Your task to perform on an android device: Open wifi settings Image 0: 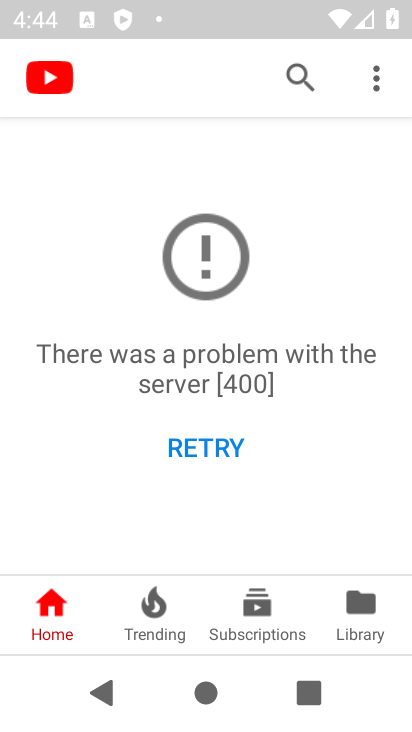
Step 0: press home button
Your task to perform on an android device: Open wifi settings Image 1: 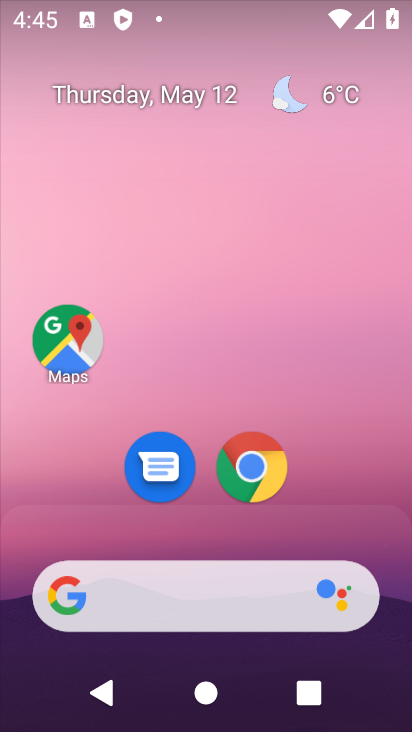
Step 1: drag from (124, 569) to (359, 4)
Your task to perform on an android device: Open wifi settings Image 2: 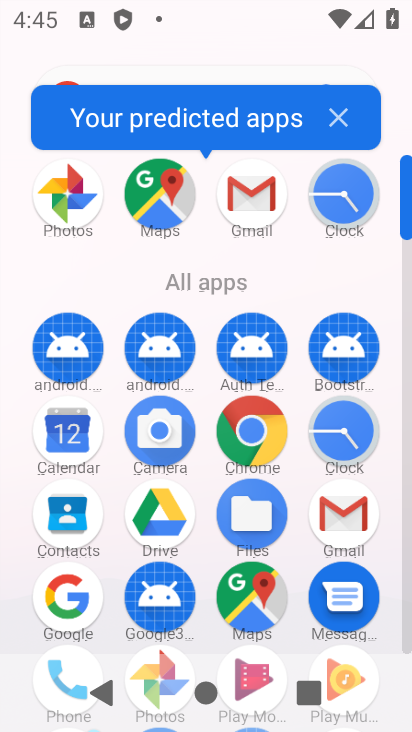
Step 2: drag from (202, 561) to (221, 257)
Your task to perform on an android device: Open wifi settings Image 3: 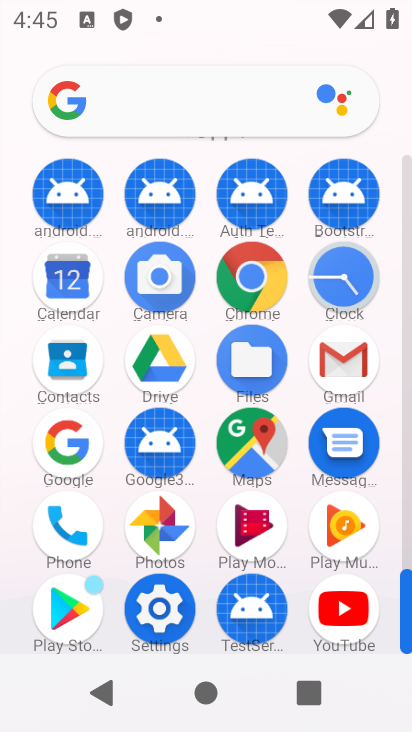
Step 3: click (164, 607)
Your task to perform on an android device: Open wifi settings Image 4: 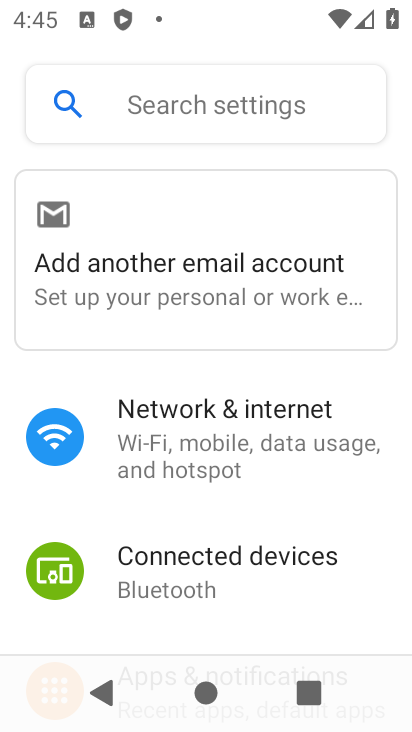
Step 4: click (339, 259)
Your task to perform on an android device: Open wifi settings Image 5: 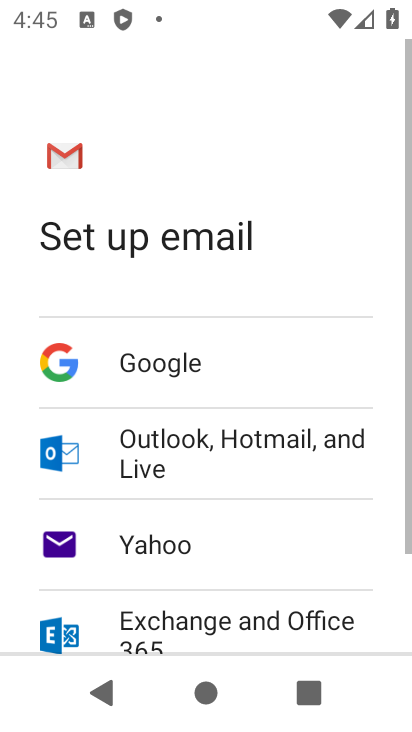
Step 5: press back button
Your task to perform on an android device: Open wifi settings Image 6: 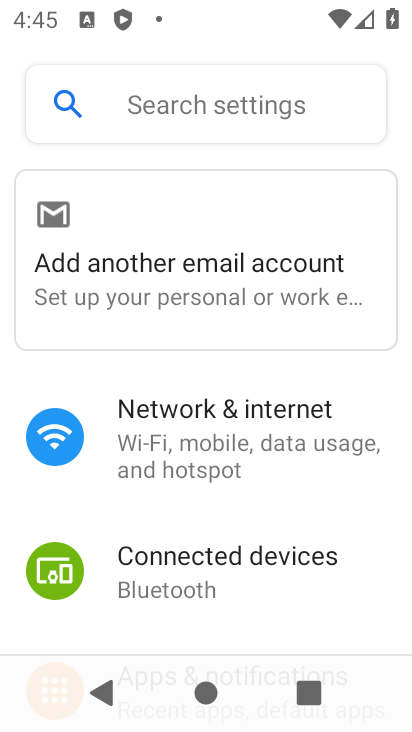
Step 6: click (260, 454)
Your task to perform on an android device: Open wifi settings Image 7: 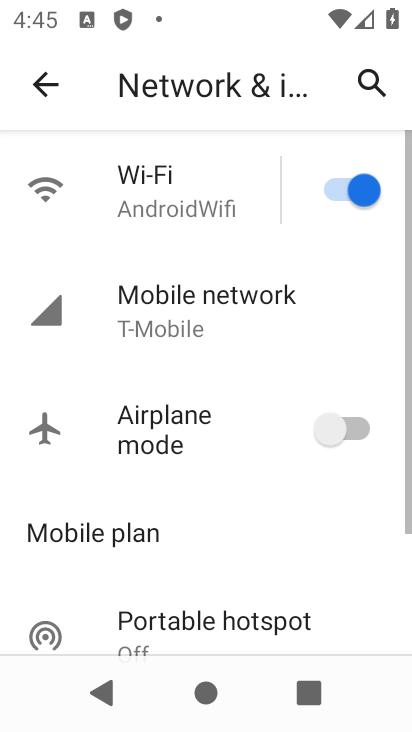
Step 7: click (150, 183)
Your task to perform on an android device: Open wifi settings Image 8: 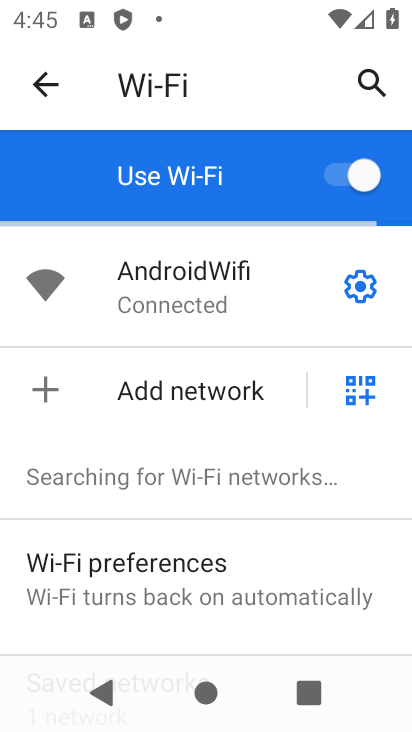
Step 8: task complete